Your task to perform on an android device: Go to settings Image 0: 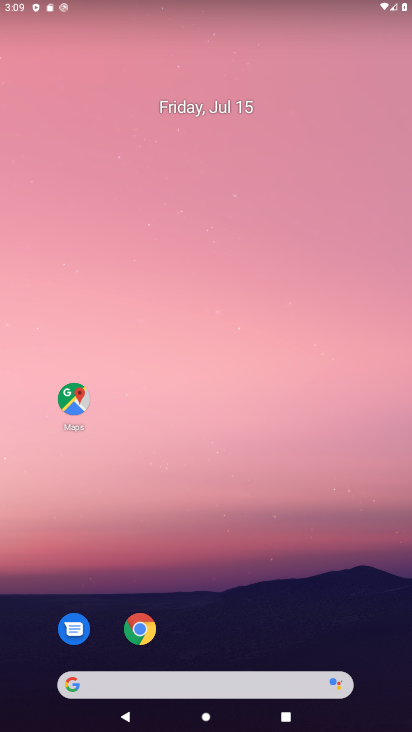
Step 0: drag from (302, 599) to (284, 9)
Your task to perform on an android device: Go to settings Image 1: 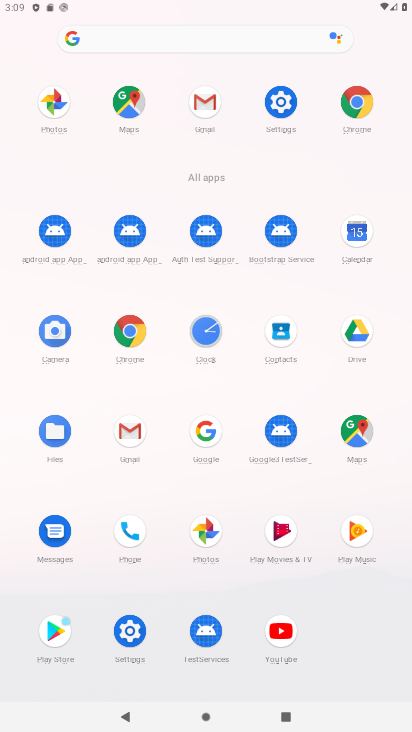
Step 1: click (278, 109)
Your task to perform on an android device: Go to settings Image 2: 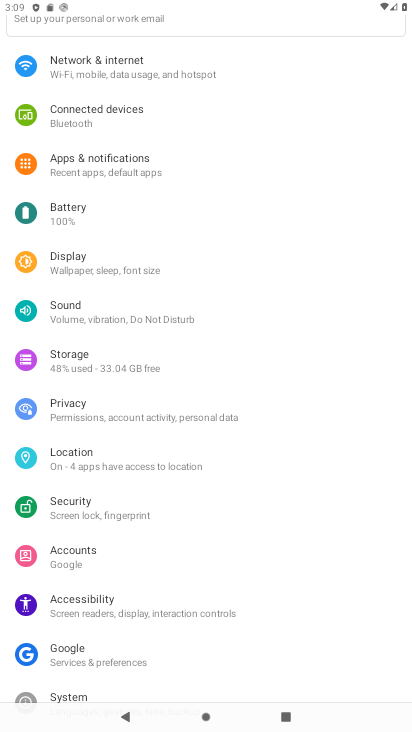
Step 2: task complete